Your task to perform on an android device: Go to Google maps Image 0: 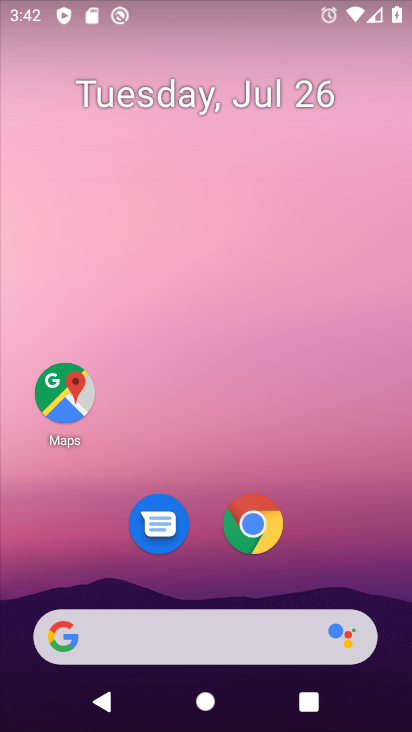
Step 0: click (62, 403)
Your task to perform on an android device: Go to Google maps Image 1: 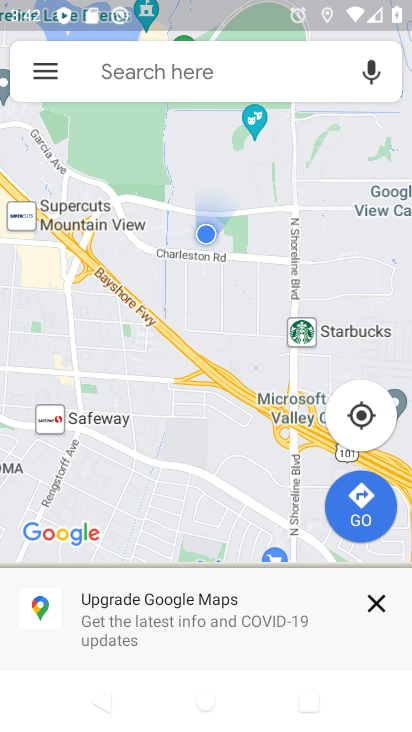
Step 1: task complete